Your task to perform on an android device: Find coffee shops on Maps Image 0: 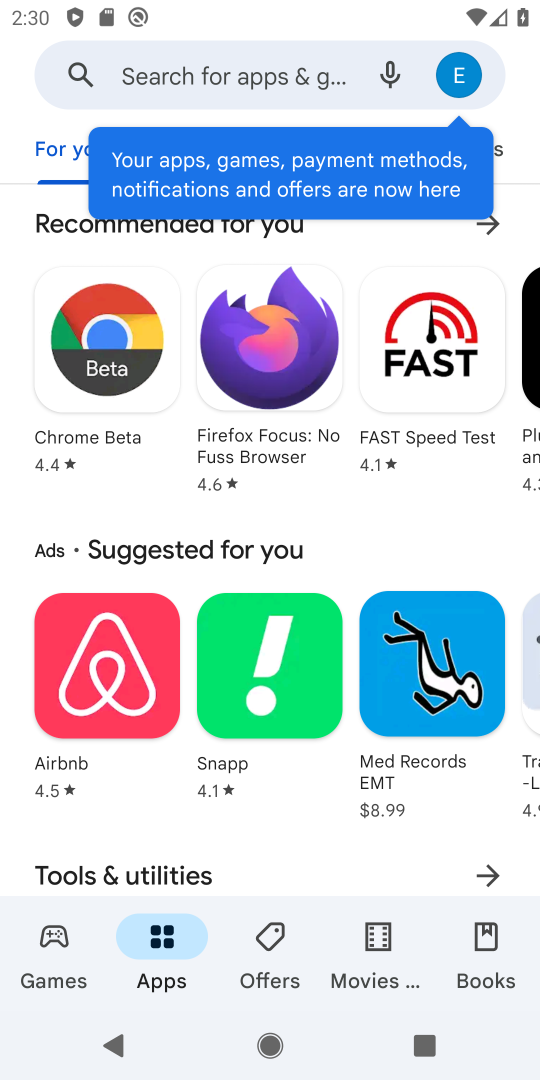
Step 0: press home button
Your task to perform on an android device: Find coffee shops on Maps Image 1: 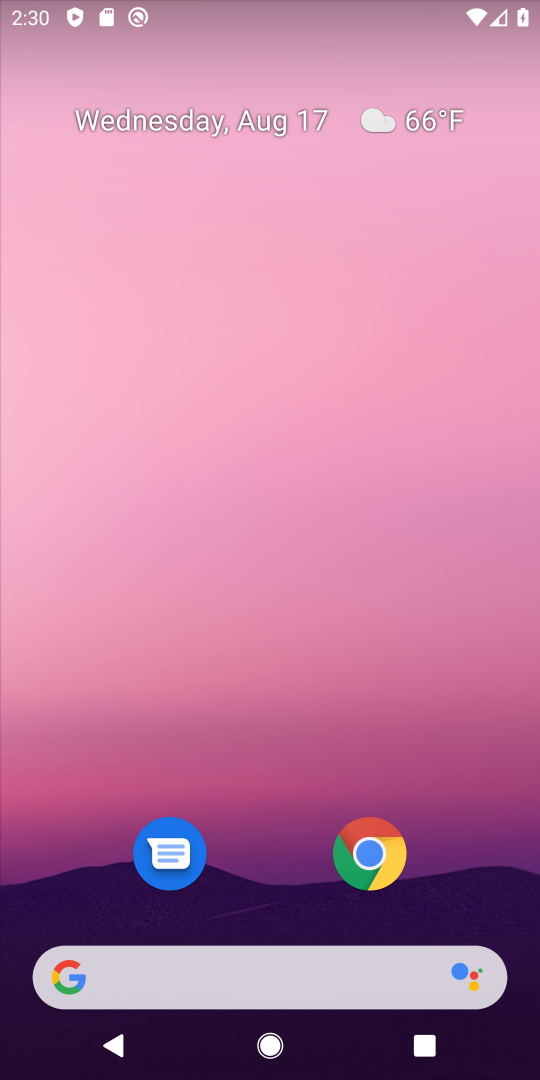
Step 1: drag from (281, 862) to (354, 118)
Your task to perform on an android device: Find coffee shops on Maps Image 2: 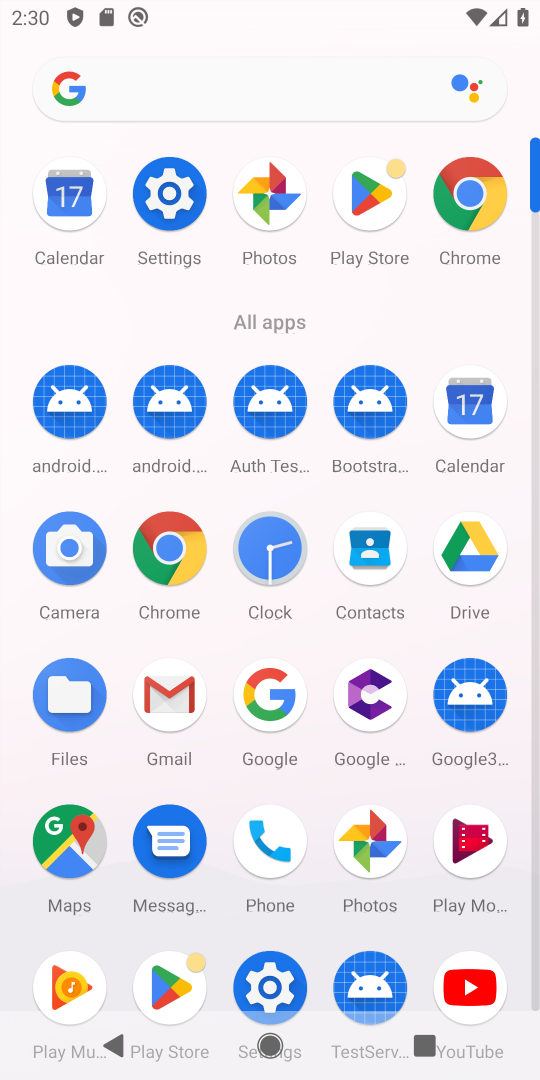
Step 2: click (72, 846)
Your task to perform on an android device: Find coffee shops on Maps Image 3: 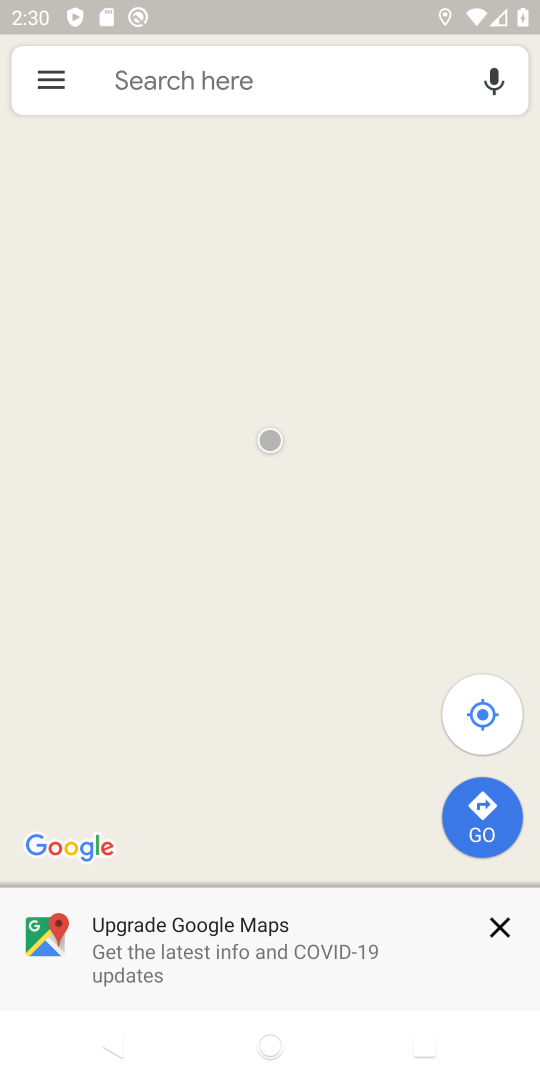
Step 3: click (172, 80)
Your task to perform on an android device: Find coffee shops on Maps Image 4: 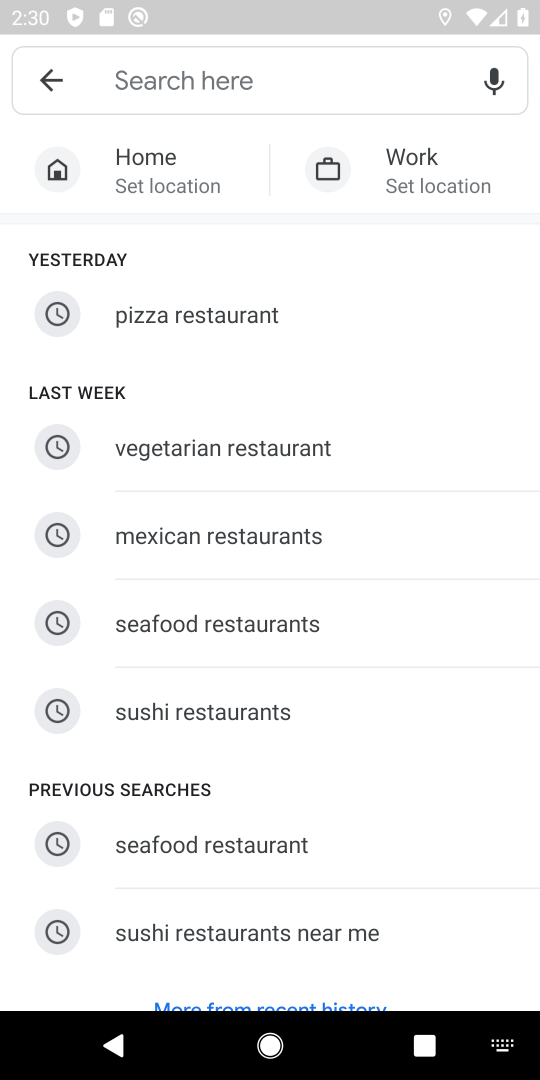
Step 4: type "coffee shops"
Your task to perform on an android device: Find coffee shops on Maps Image 5: 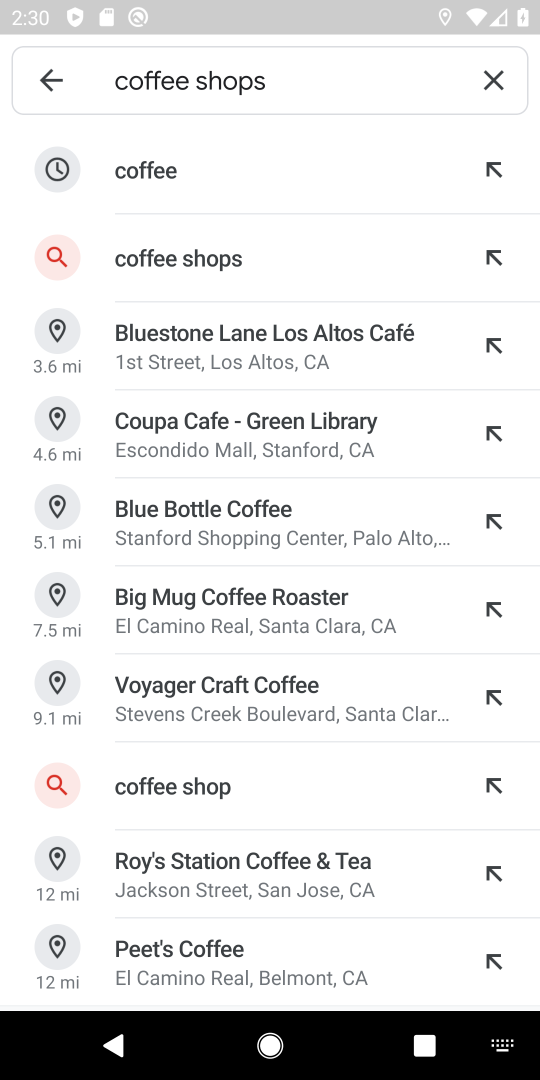
Step 5: click (244, 246)
Your task to perform on an android device: Find coffee shops on Maps Image 6: 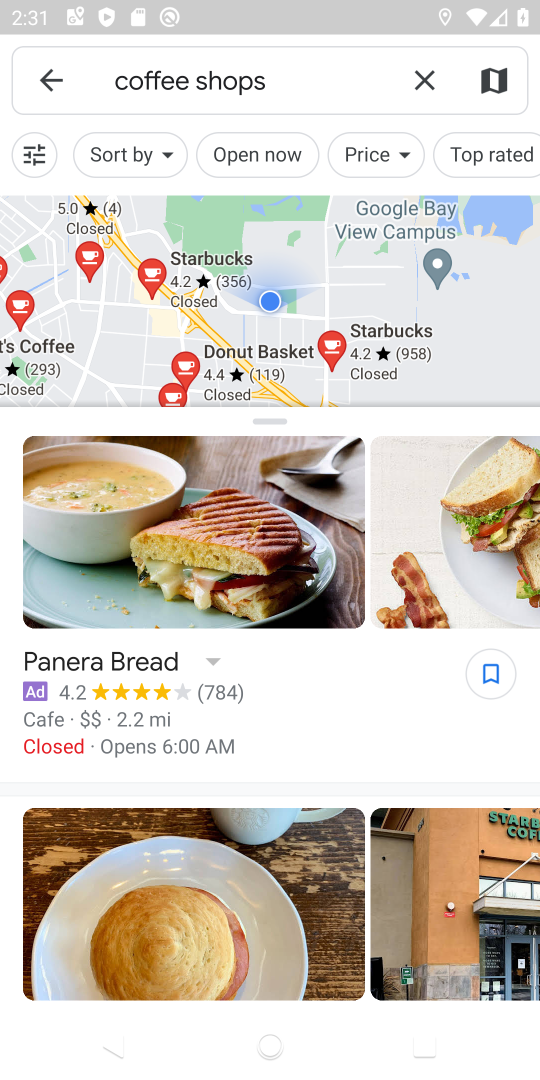
Step 6: task complete